Your task to perform on an android device: change text size in settings app Image 0: 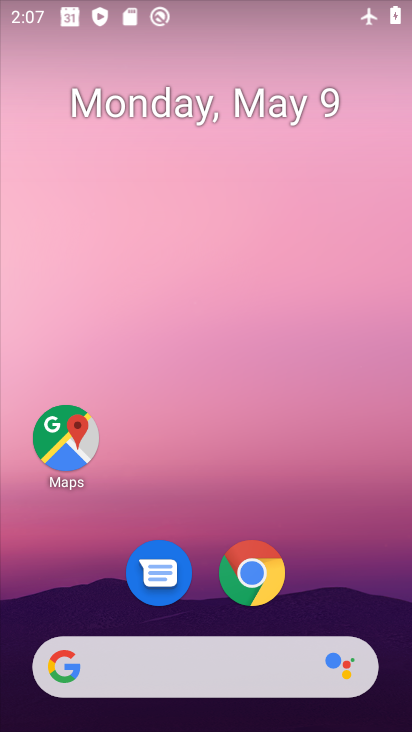
Step 0: drag from (325, 710) to (254, 261)
Your task to perform on an android device: change text size in settings app Image 1: 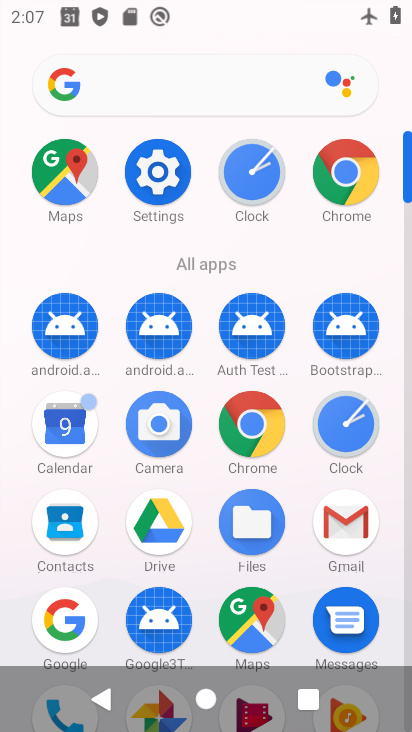
Step 1: click (165, 173)
Your task to perform on an android device: change text size in settings app Image 2: 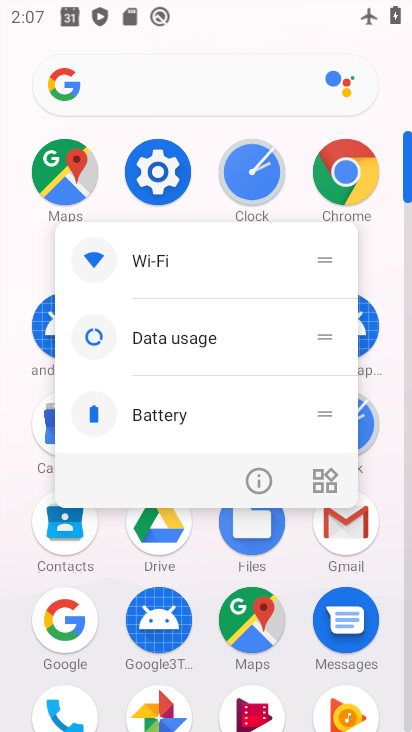
Step 2: click (158, 180)
Your task to perform on an android device: change text size in settings app Image 3: 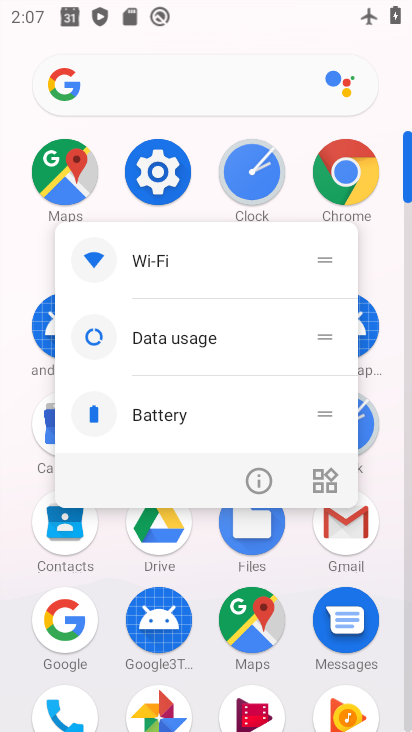
Step 3: click (156, 181)
Your task to perform on an android device: change text size in settings app Image 4: 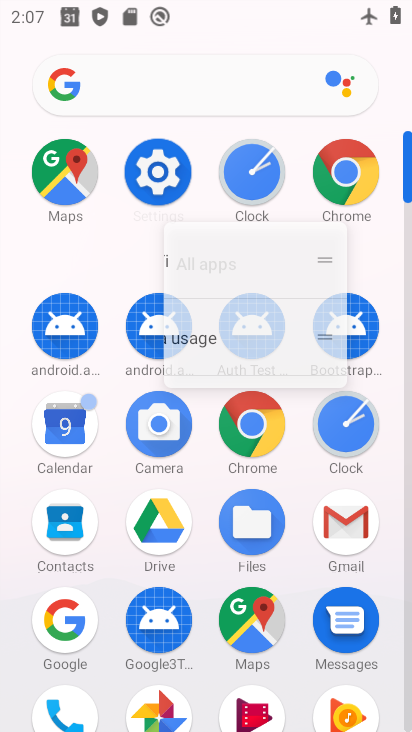
Step 4: click (156, 181)
Your task to perform on an android device: change text size in settings app Image 5: 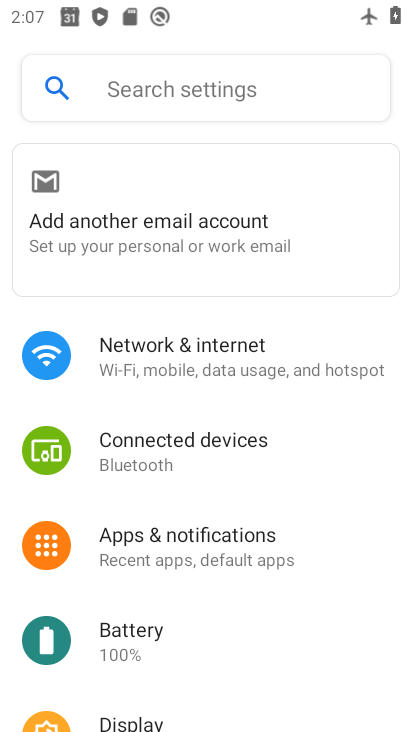
Step 5: click (156, 181)
Your task to perform on an android device: change text size in settings app Image 6: 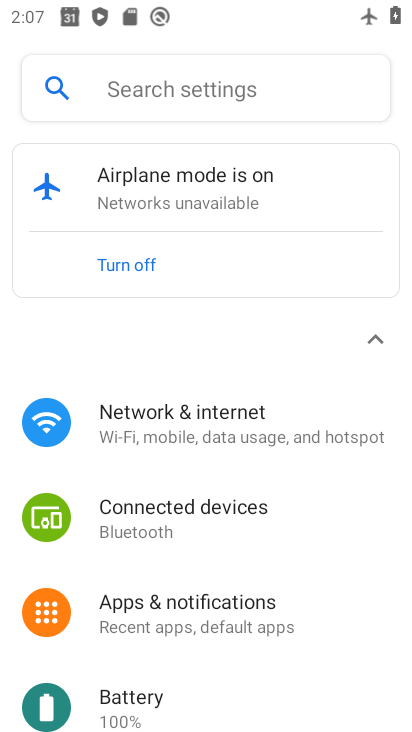
Step 6: drag from (223, 657) to (215, 268)
Your task to perform on an android device: change text size in settings app Image 7: 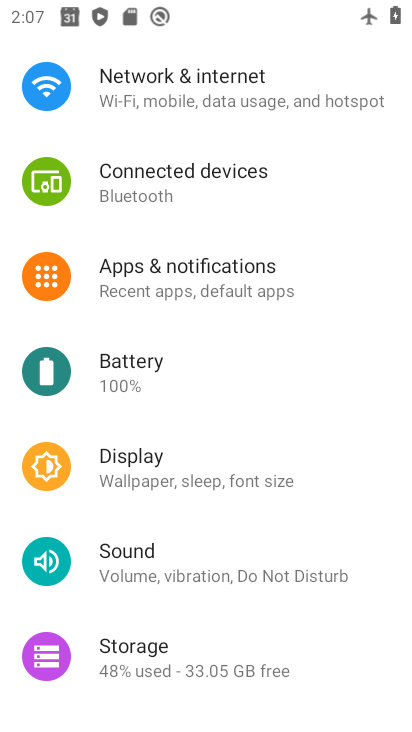
Step 7: drag from (204, 563) to (246, 226)
Your task to perform on an android device: change text size in settings app Image 8: 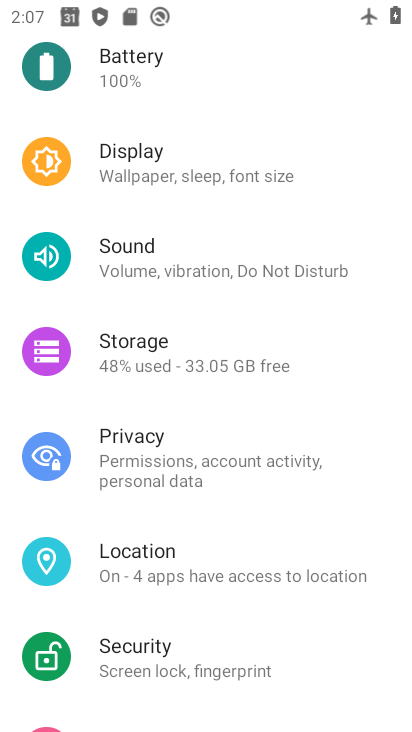
Step 8: click (146, 163)
Your task to perform on an android device: change text size in settings app Image 9: 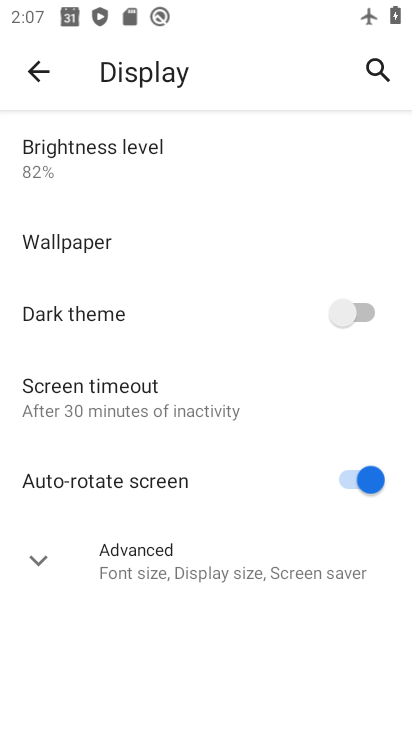
Step 9: click (162, 568)
Your task to perform on an android device: change text size in settings app Image 10: 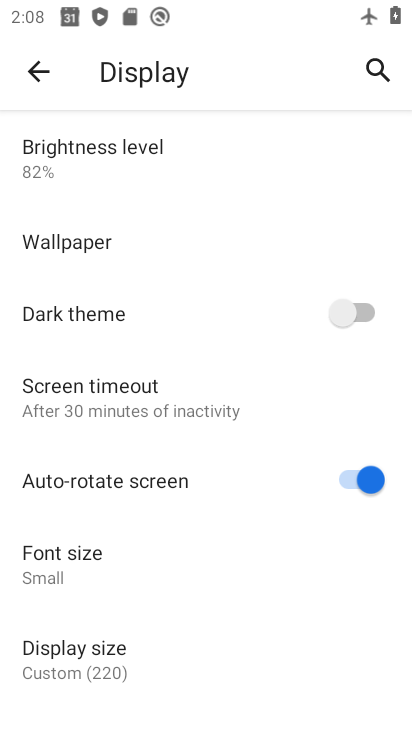
Step 10: click (38, 558)
Your task to perform on an android device: change text size in settings app Image 11: 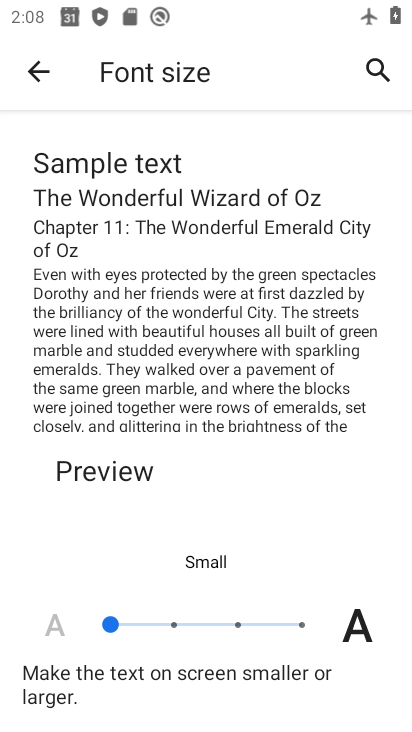
Step 11: click (169, 625)
Your task to perform on an android device: change text size in settings app Image 12: 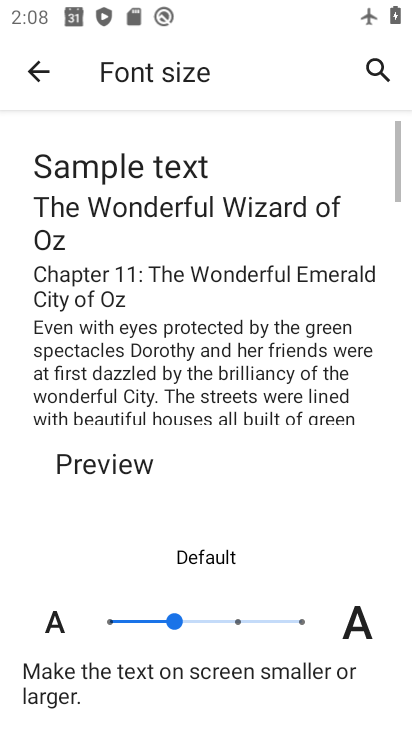
Step 12: task complete